Your task to perform on an android device: Open eBay Image 0: 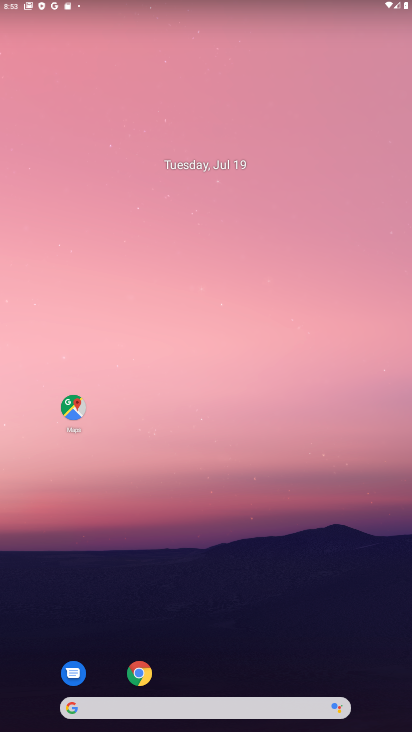
Step 0: click (142, 671)
Your task to perform on an android device: Open eBay Image 1: 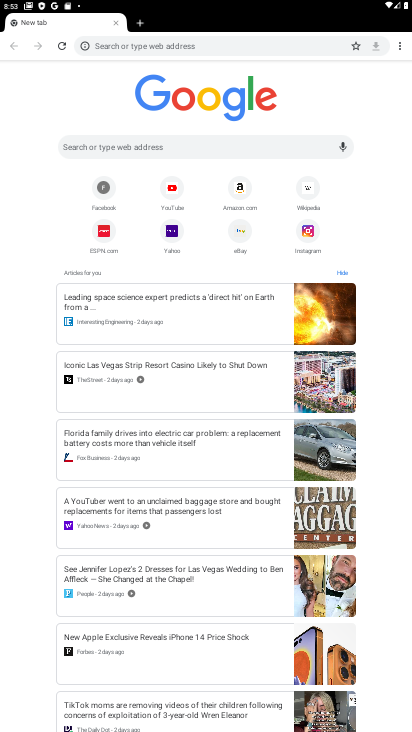
Step 1: click (245, 236)
Your task to perform on an android device: Open eBay Image 2: 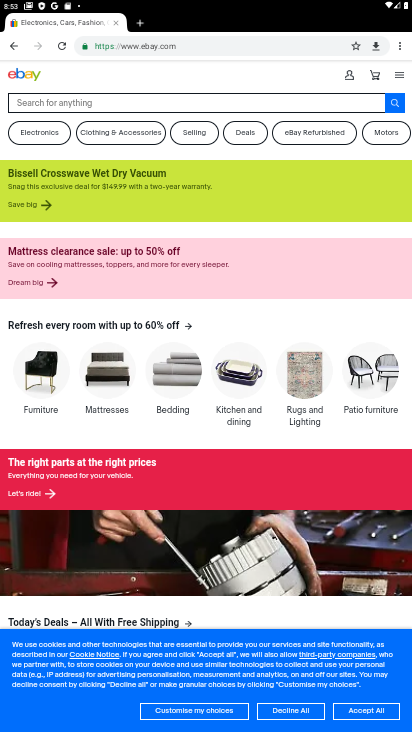
Step 2: task complete